Your task to perform on an android device: turn on airplane mode Image 0: 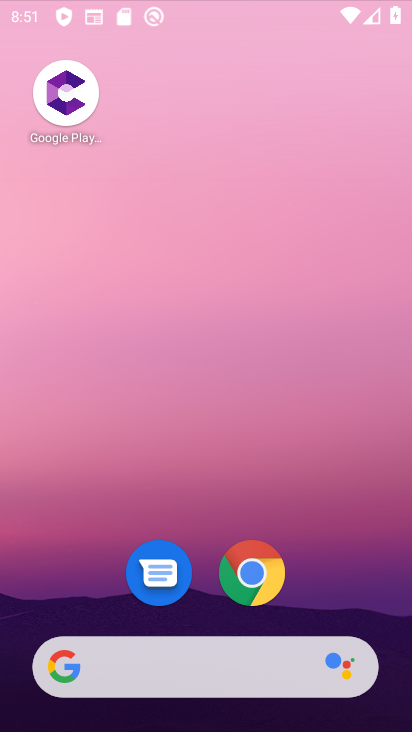
Step 0: drag from (106, 537) to (180, 123)
Your task to perform on an android device: turn on airplane mode Image 1: 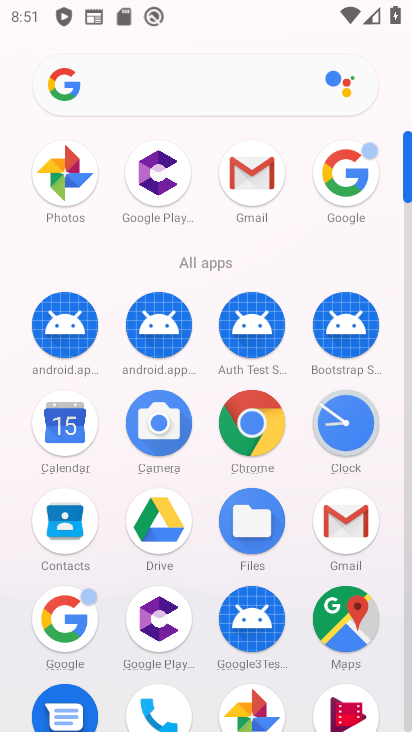
Step 1: drag from (170, 623) to (230, 334)
Your task to perform on an android device: turn on airplane mode Image 2: 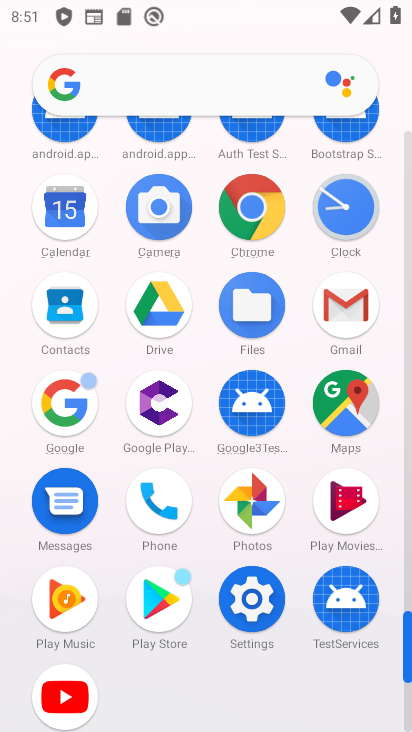
Step 2: click (261, 623)
Your task to perform on an android device: turn on airplane mode Image 3: 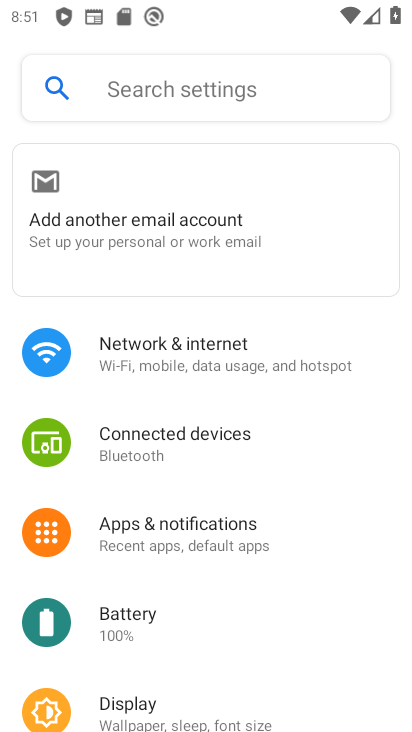
Step 3: click (259, 363)
Your task to perform on an android device: turn on airplane mode Image 4: 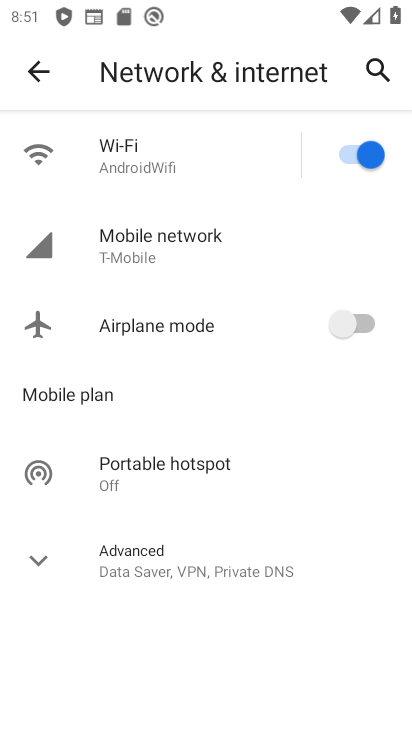
Step 4: click (377, 315)
Your task to perform on an android device: turn on airplane mode Image 5: 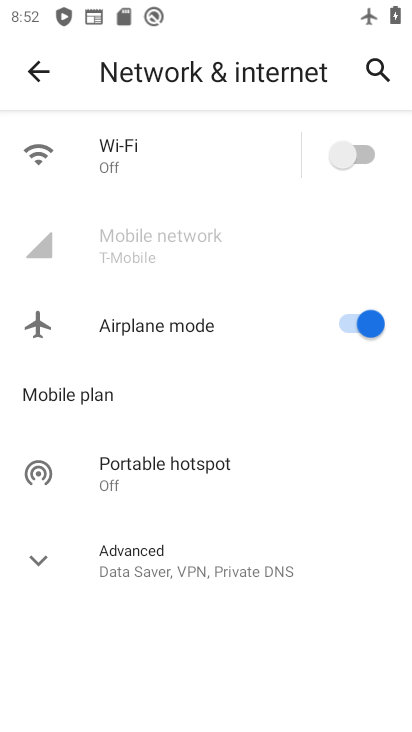
Step 5: task complete